Your task to perform on an android device: Is it going to rain today? Image 0: 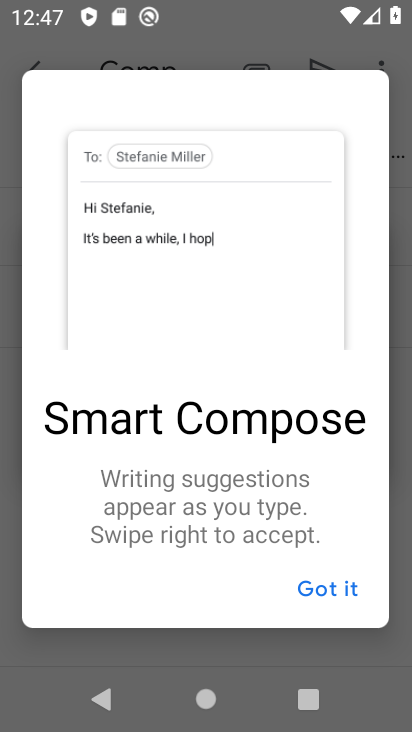
Step 0: press home button
Your task to perform on an android device: Is it going to rain today? Image 1: 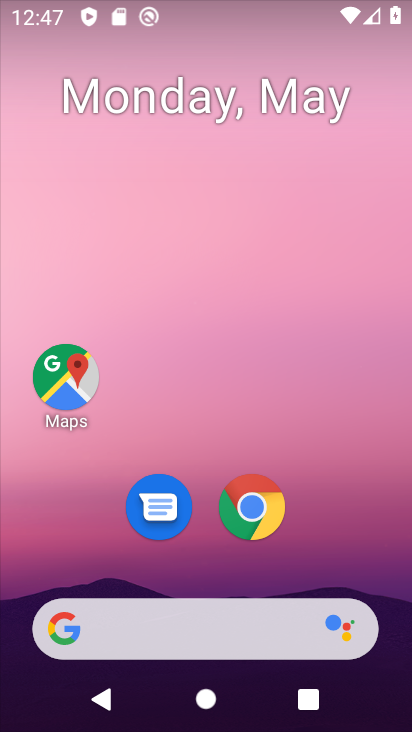
Step 1: drag from (230, 709) to (230, 96)
Your task to perform on an android device: Is it going to rain today? Image 2: 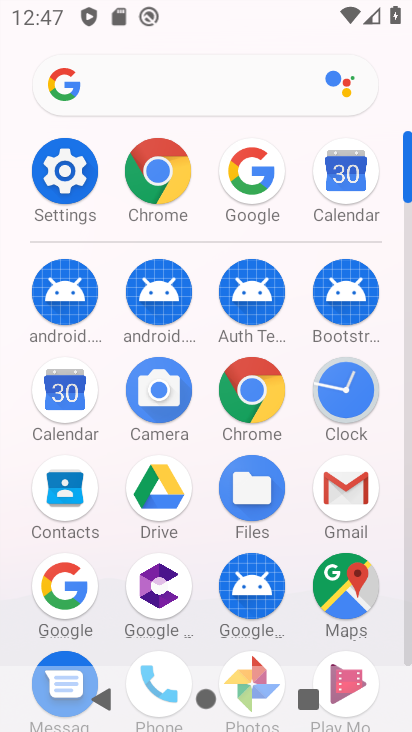
Step 2: click (61, 587)
Your task to perform on an android device: Is it going to rain today? Image 3: 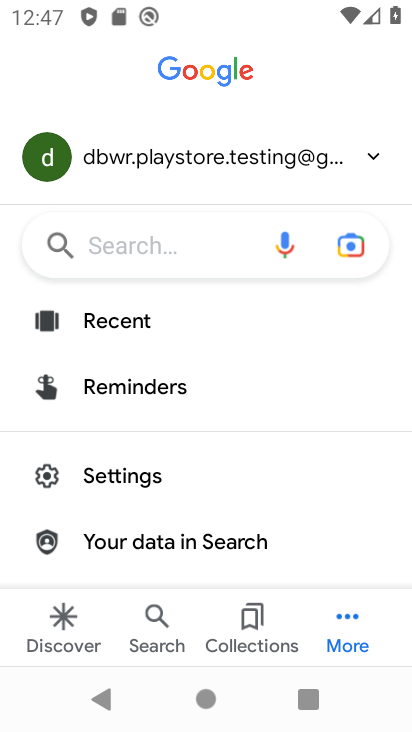
Step 3: click (179, 622)
Your task to perform on an android device: Is it going to rain today? Image 4: 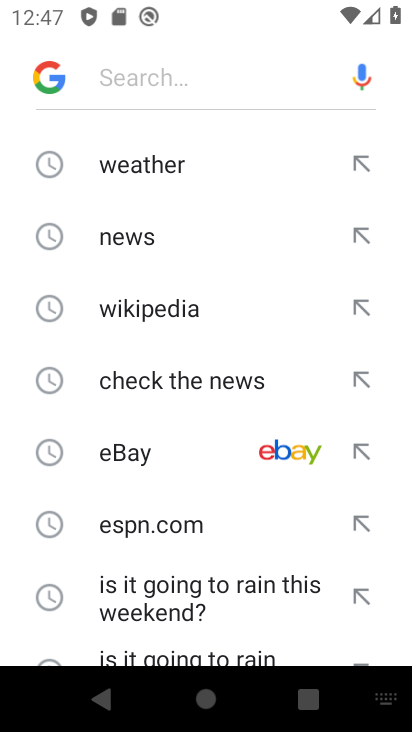
Step 4: click (139, 169)
Your task to perform on an android device: Is it going to rain today? Image 5: 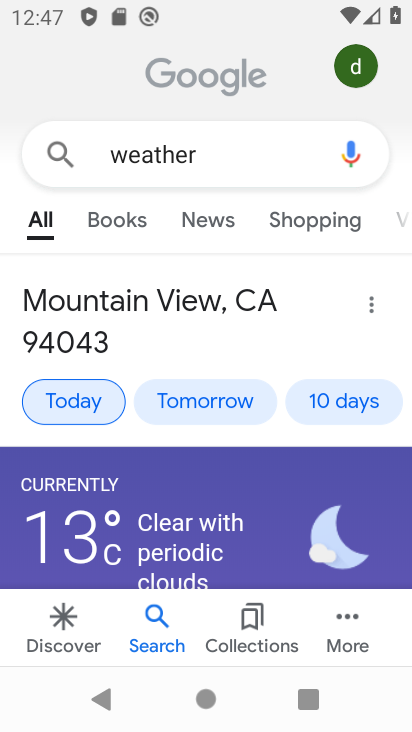
Step 5: click (67, 402)
Your task to perform on an android device: Is it going to rain today? Image 6: 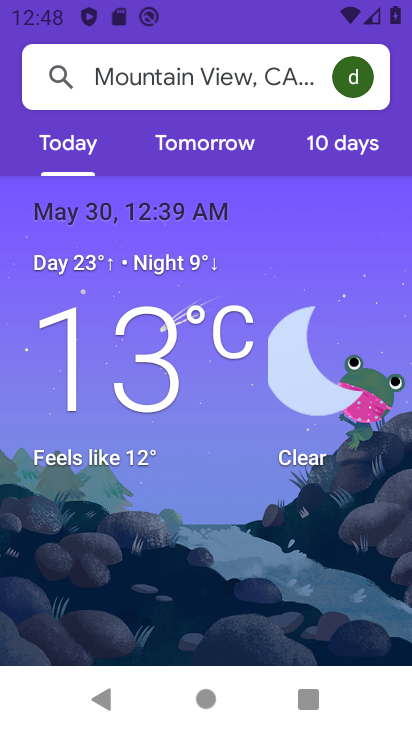
Step 6: task complete